Your task to perform on an android device: Search for sushi restaurants on Maps Image 0: 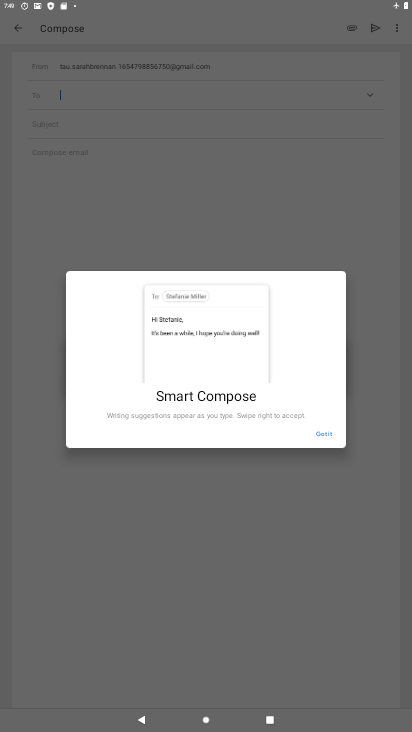
Step 0: press home button
Your task to perform on an android device: Search for sushi restaurants on Maps Image 1: 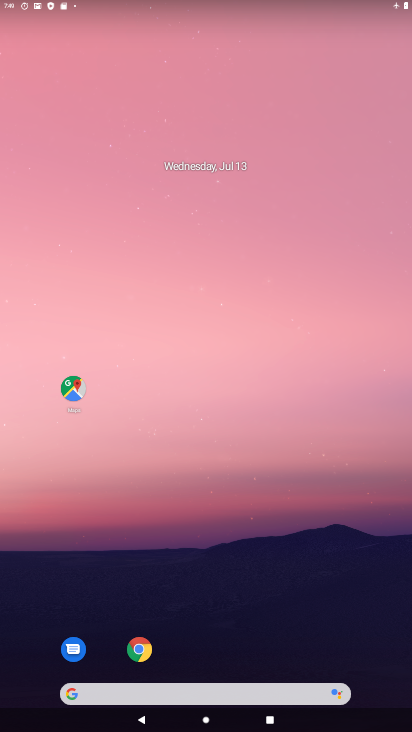
Step 1: click (77, 395)
Your task to perform on an android device: Search for sushi restaurants on Maps Image 2: 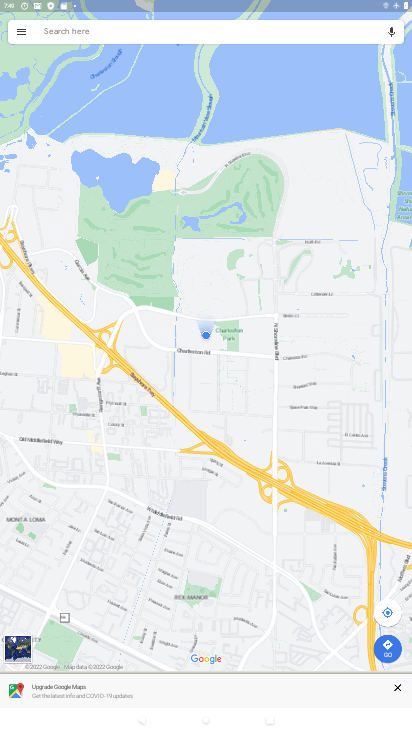
Step 2: click (245, 24)
Your task to perform on an android device: Search for sushi restaurants on Maps Image 3: 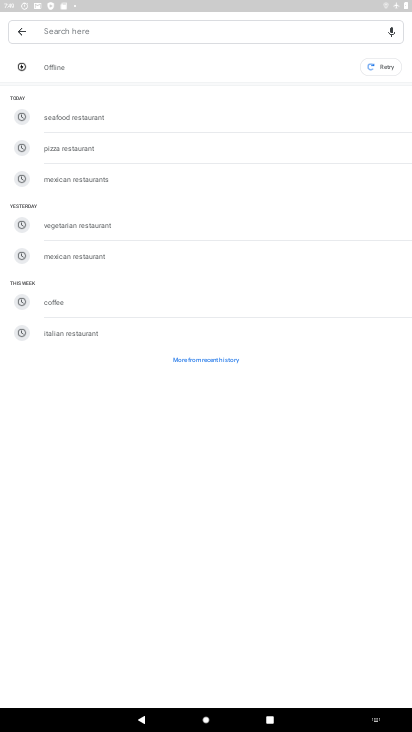
Step 3: type "Sushi restaurants"
Your task to perform on an android device: Search for sushi restaurants on Maps Image 4: 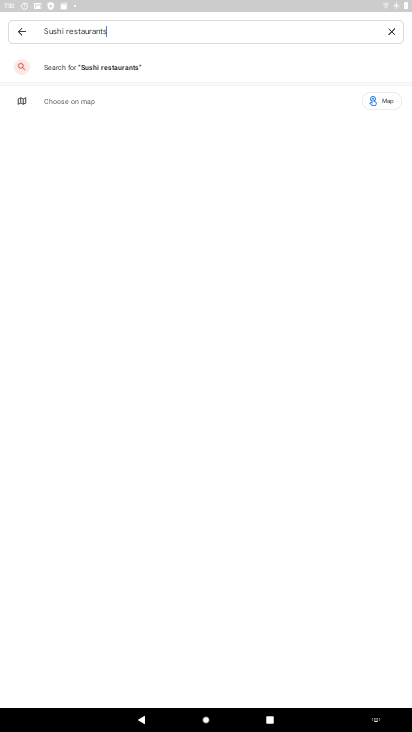
Step 4: click (132, 74)
Your task to perform on an android device: Search for sushi restaurants on Maps Image 5: 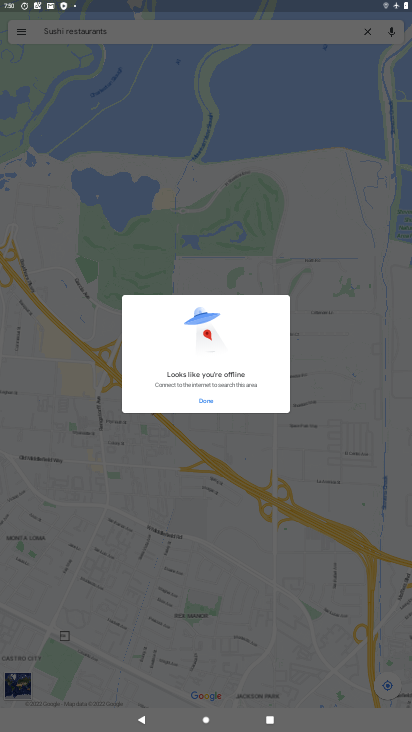
Step 5: task complete